Your task to perform on an android device: star an email in the gmail app Image 0: 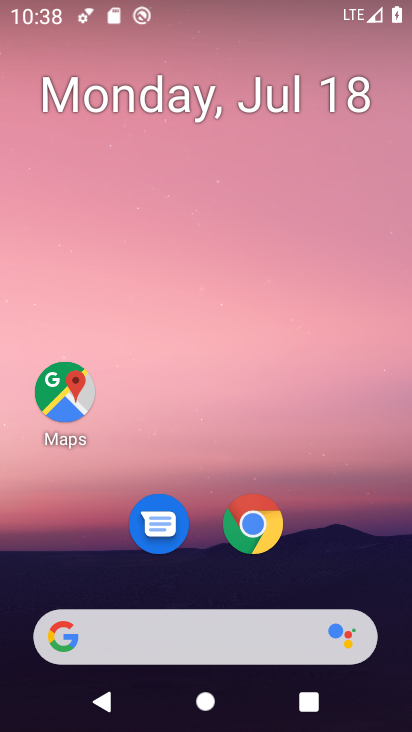
Step 0: drag from (357, 540) to (324, 34)
Your task to perform on an android device: star an email in the gmail app Image 1: 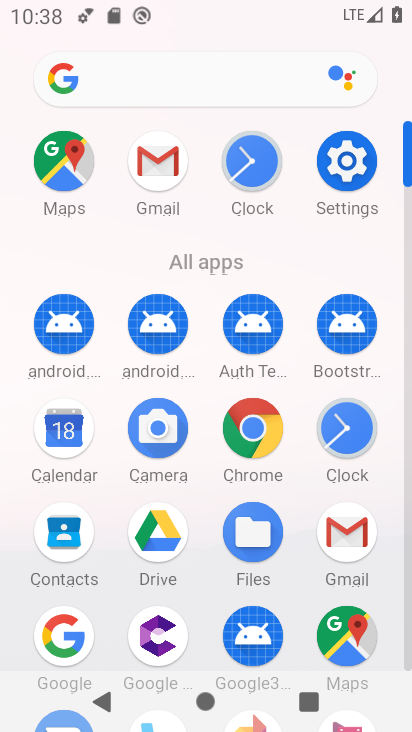
Step 1: click (166, 163)
Your task to perform on an android device: star an email in the gmail app Image 2: 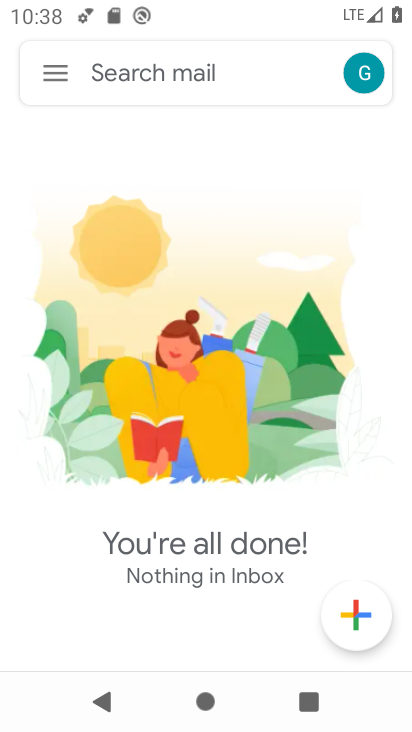
Step 2: click (52, 77)
Your task to perform on an android device: star an email in the gmail app Image 3: 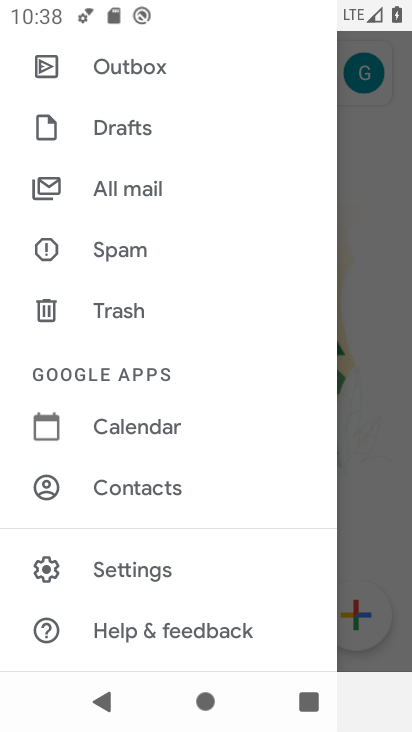
Step 3: click (106, 190)
Your task to perform on an android device: star an email in the gmail app Image 4: 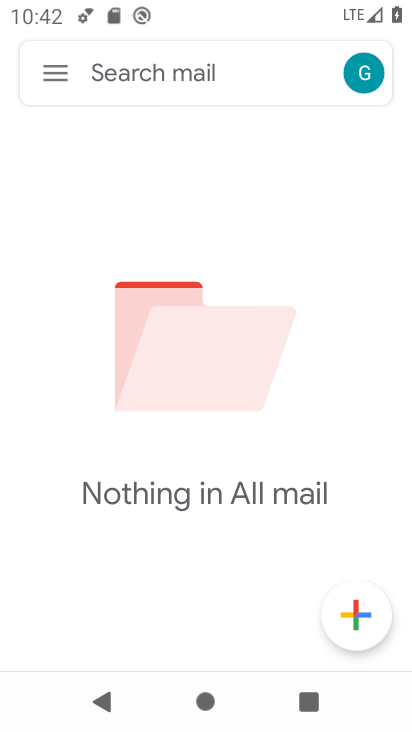
Step 4: task complete